Your task to perform on an android device: Go to settings Image 0: 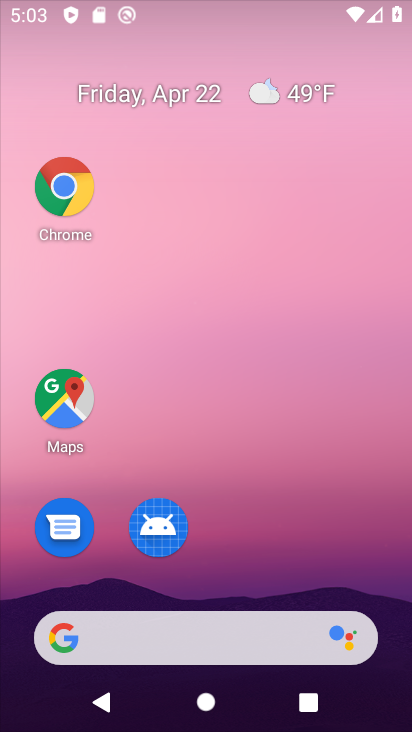
Step 0: click (114, 111)
Your task to perform on an android device: Go to settings Image 1: 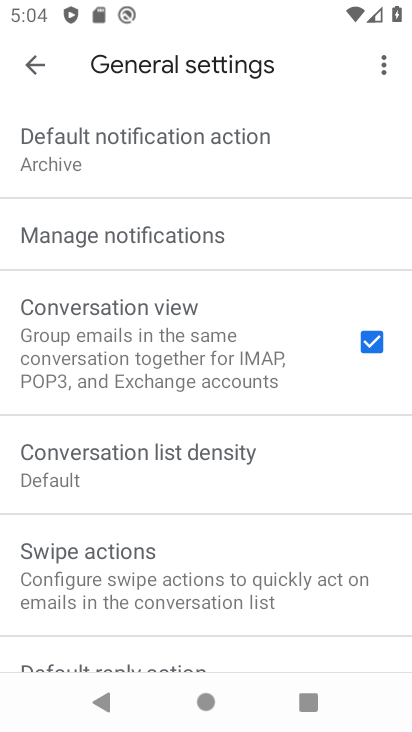
Step 1: drag from (152, 482) to (186, 131)
Your task to perform on an android device: Go to settings Image 2: 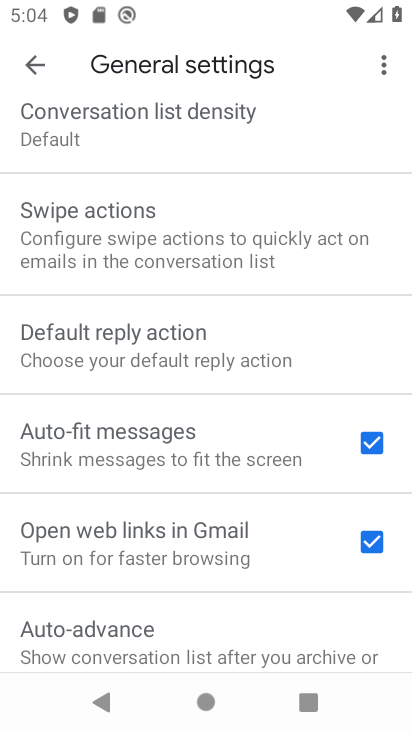
Step 2: click (24, 62)
Your task to perform on an android device: Go to settings Image 3: 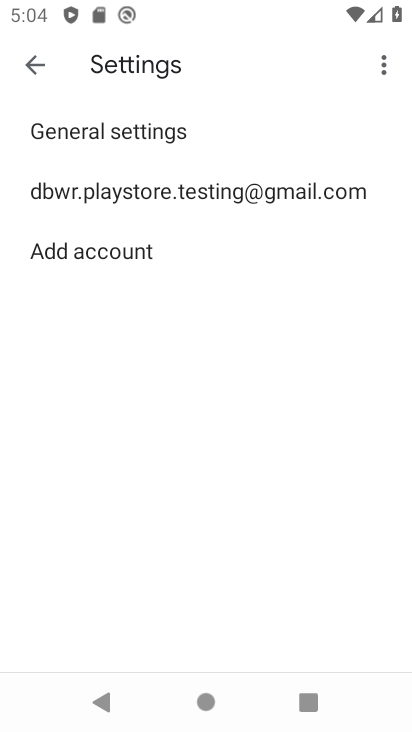
Step 3: click (32, 48)
Your task to perform on an android device: Go to settings Image 4: 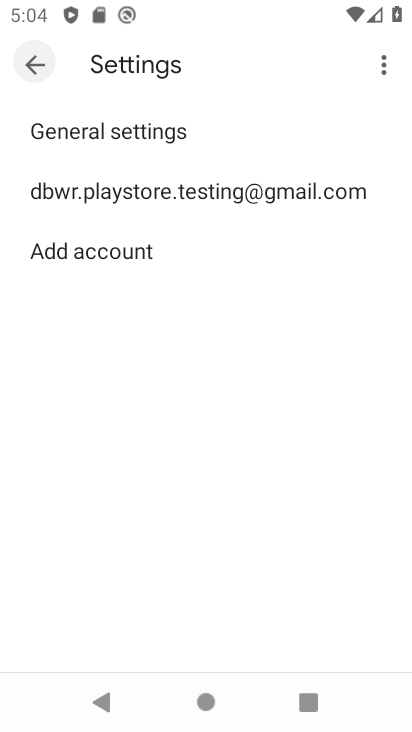
Step 4: click (20, 61)
Your task to perform on an android device: Go to settings Image 5: 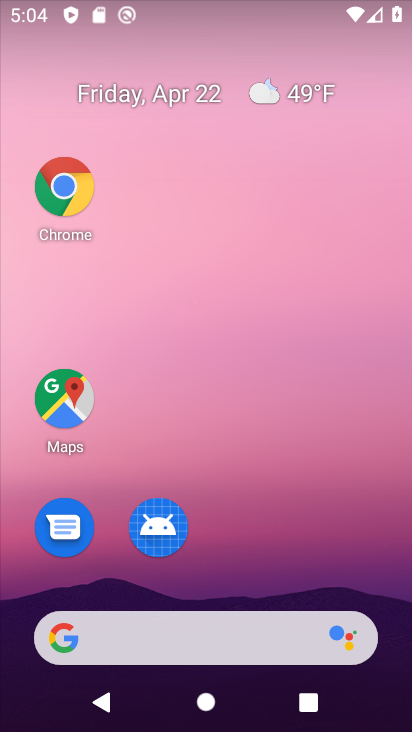
Step 5: drag from (282, 702) to (123, 85)
Your task to perform on an android device: Go to settings Image 6: 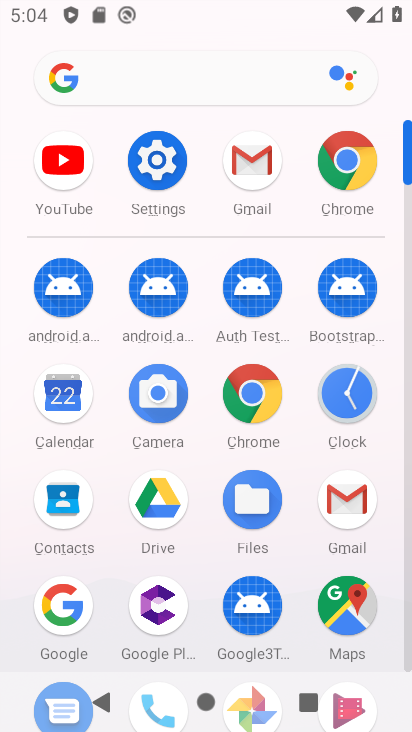
Step 6: click (153, 156)
Your task to perform on an android device: Go to settings Image 7: 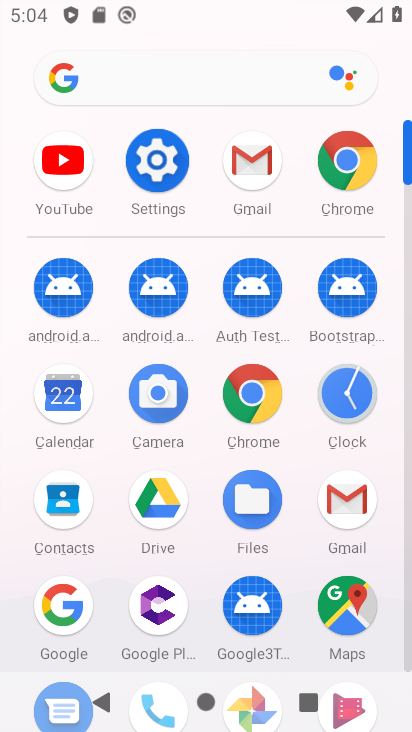
Step 7: click (153, 156)
Your task to perform on an android device: Go to settings Image 8: 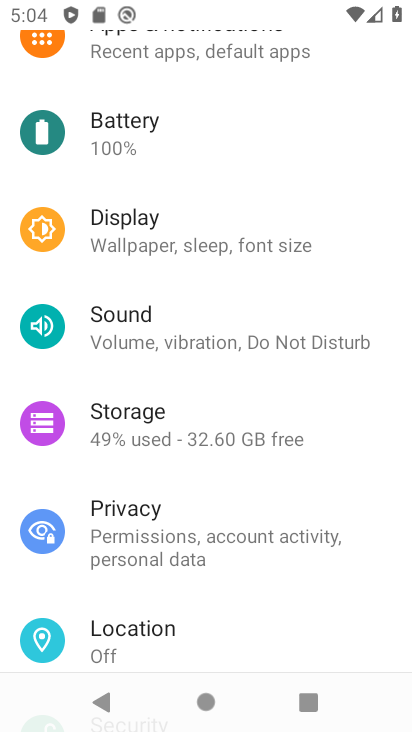
Step 8: task complete